Your task to perform on an android device: Open Chrome and go to settings Image 0: 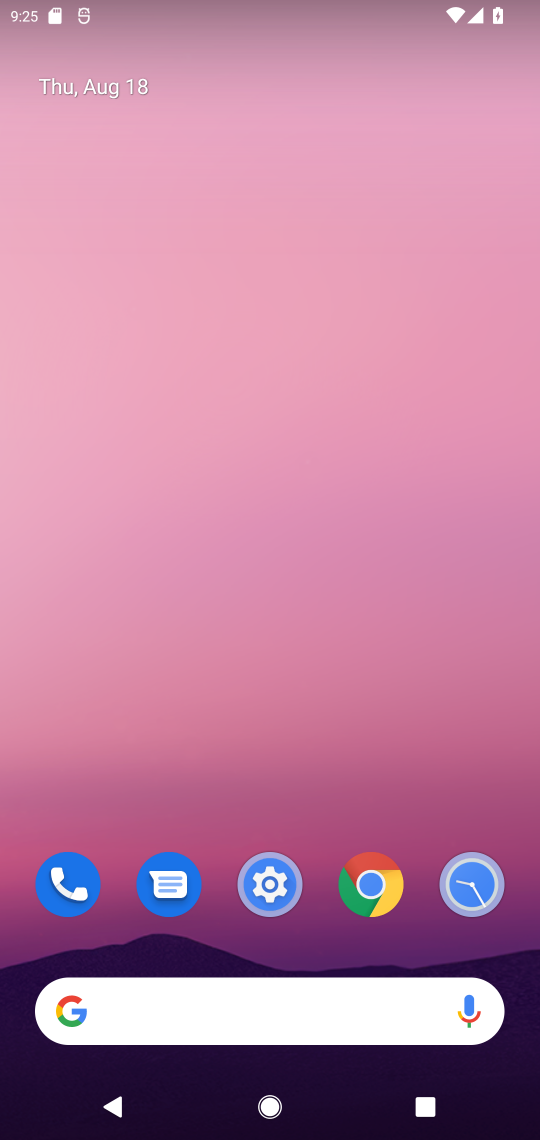
Step 0: click (381, 885)
Your task to perform on an android device: Open Chrome and go to settings Image 1: 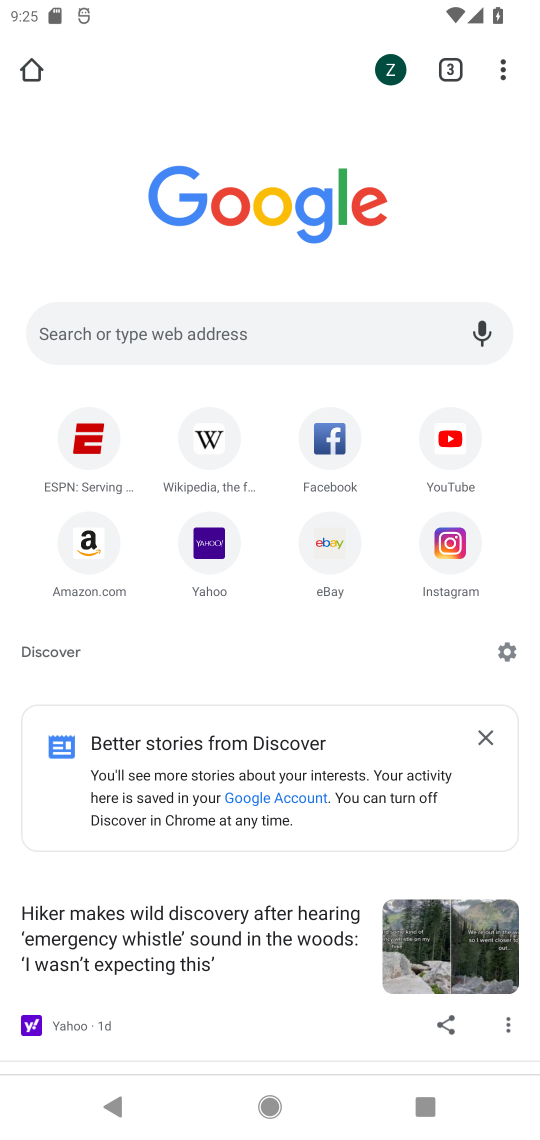
Step 1: click (515, 74)
Your task to perform on an android device: Open Chrome and go to settings Image 2: 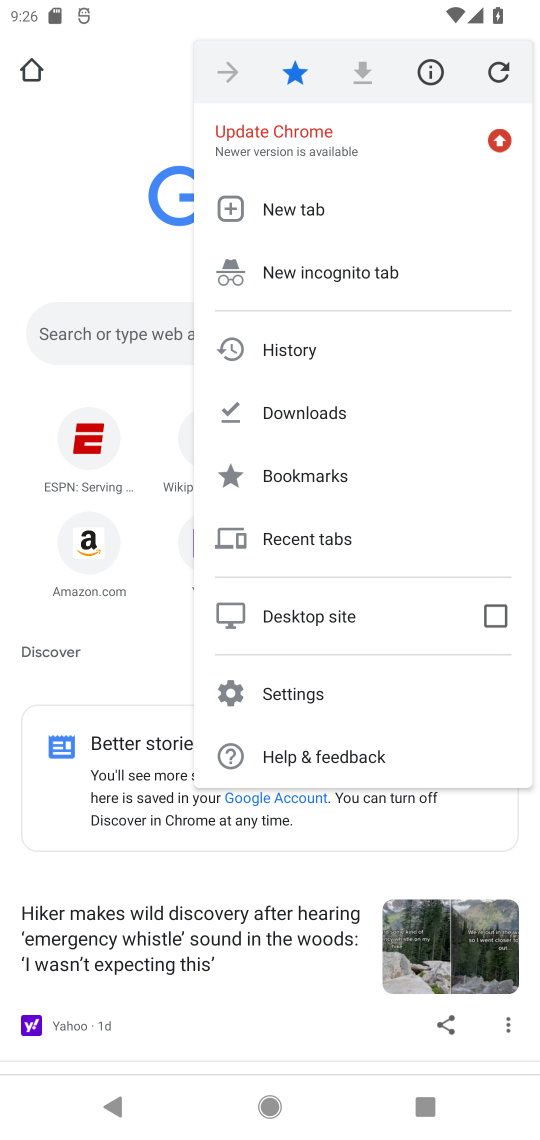
Step 2: click (269, 688)
Your task to perform on an android device: Open Chrome and go to settings Image 3: 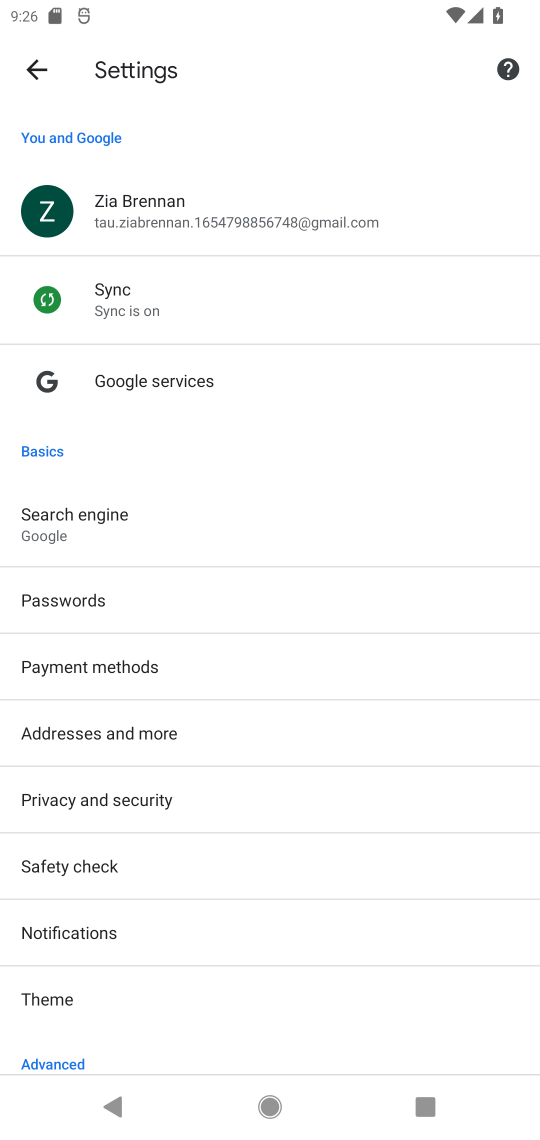
Step 3: task complete